Your task to perform on an android device: open a bookmark in the chrome app Image 0: 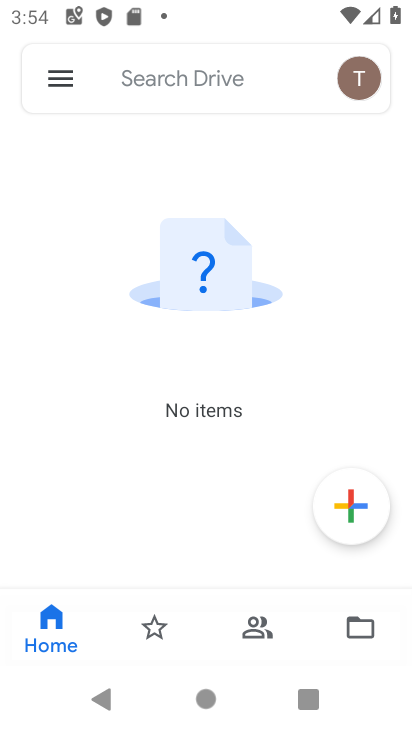
Step 0: press home button
Your task to perform on an android device: open a bookmark in the chrome app Image 1: 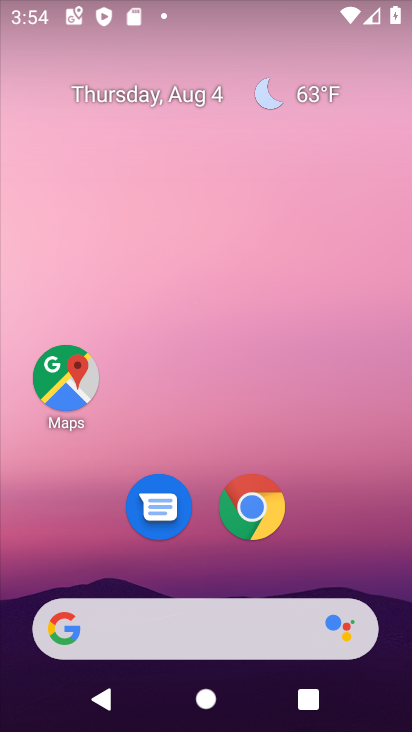
Step 1: click (283, 488)
Your task to perform on an android device: open a bookmark in the chrome app Image 2: 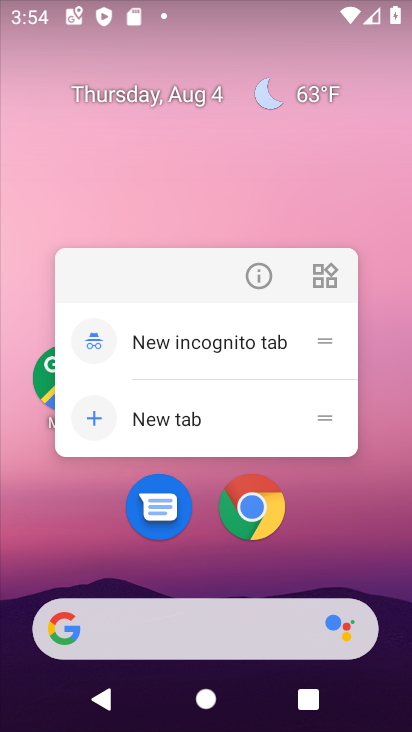
Step 2: click (252, 500)
Your task to perform on an android device: open a bookmark in the chrome app Image 3: 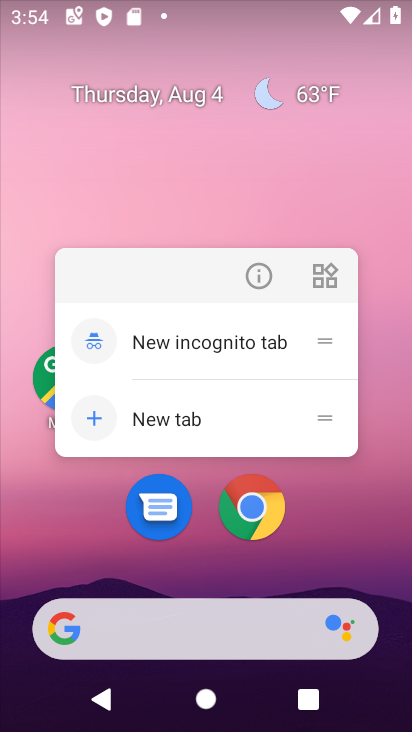
Step 3: click (249, 501)
Your task to perform on an android device: open a bookmark in the chrome app Image 4: 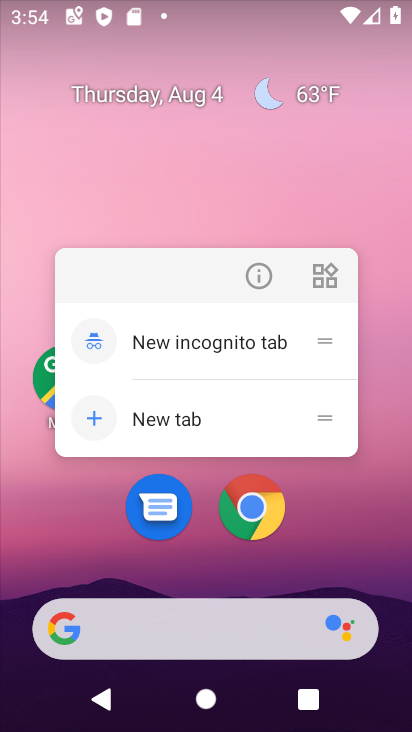
Step 4: click (260, 494)
Your task to perform on an android device: open a bookmark in the chrome app Image 5: 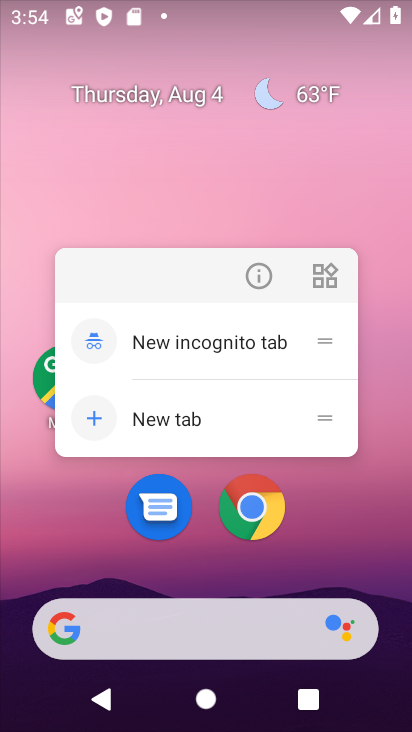
Step 5: task complete